Your task to perform on an android device: turn vacation reply on in the gmail app Image 0: 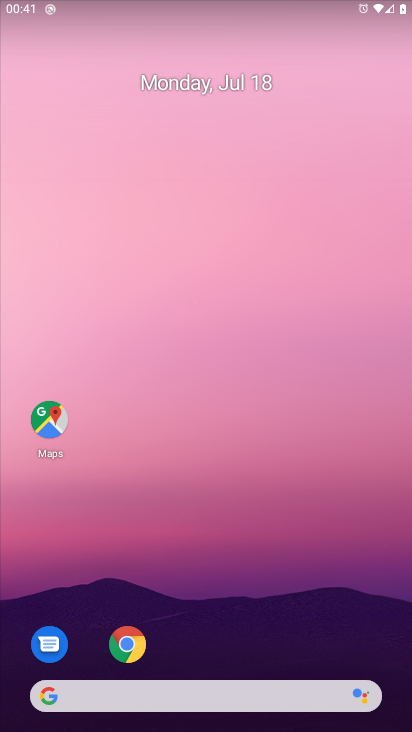
Step 0: press home button
Your task to perform on an android device: turn vacation reply on in the gmail app Image 1: 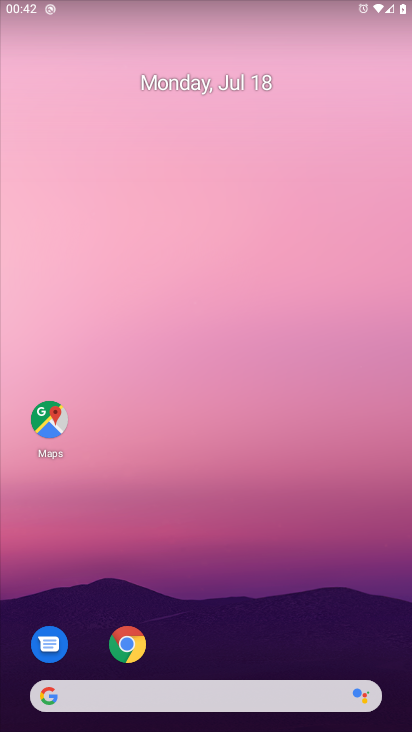
Step 1: drag from (250, 607) to (329, 10)
Your task to perform on an android device: turn vacation reply on in the gmail app Image 2: 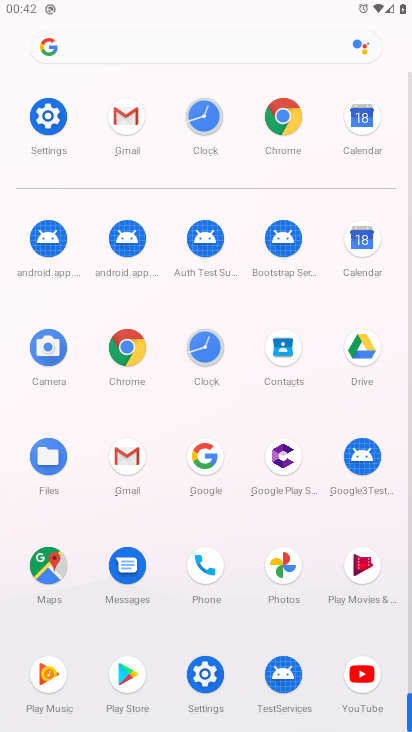
Step 2: click (140, 114)
Your task to perform on an android device: turn vacation reply on in the gmail app Image 3: 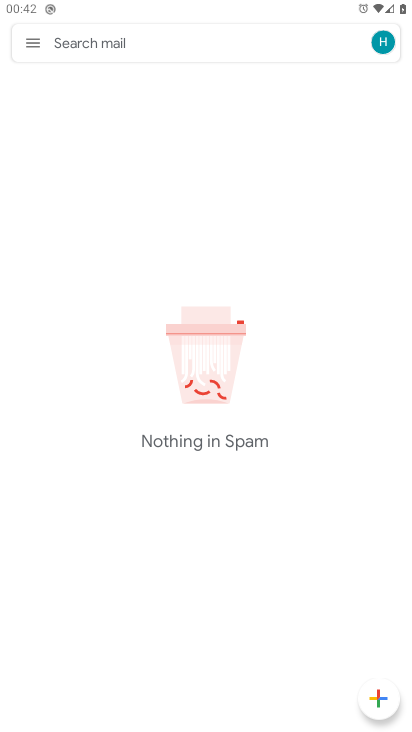
Step 3: click (34, 36)
Your task to perform on an android device: turn vacation reply on in the gmail app Image 4: 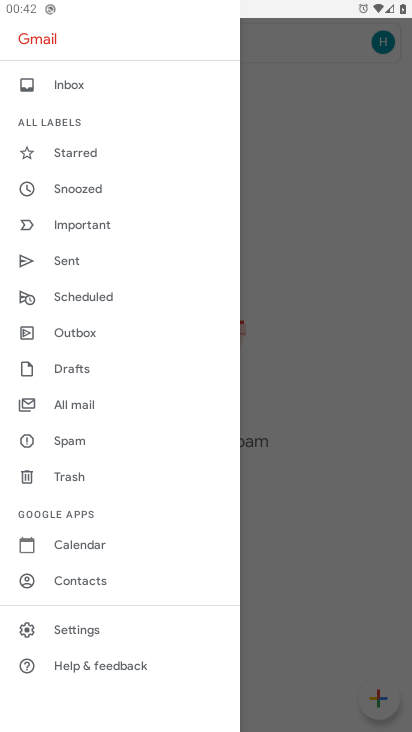
Step 4: click (66, 624)
Your task to perform on an android device: turn vacation reply on in the gmail app Image 5: 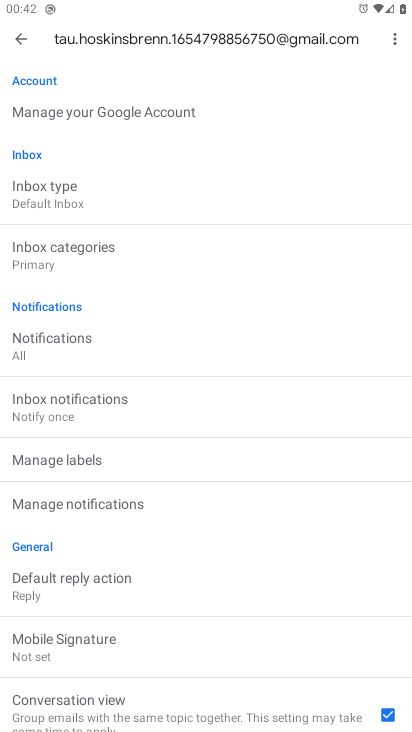
Step 5: drag from (299, 678) to (278, 206)
Your task to perform on an android device: turn vacation reply on in the gmail app Image 6: 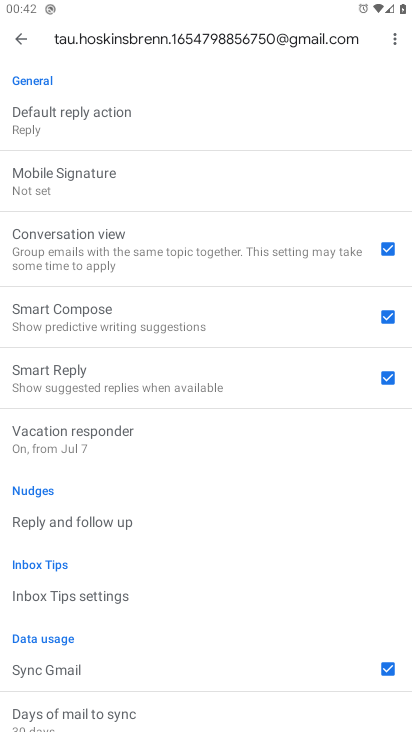
Step 6: drag from (227, 639) to (223, 216)
Your task to perform on an android device: turn vacation reply on in the gmail app Image 7: 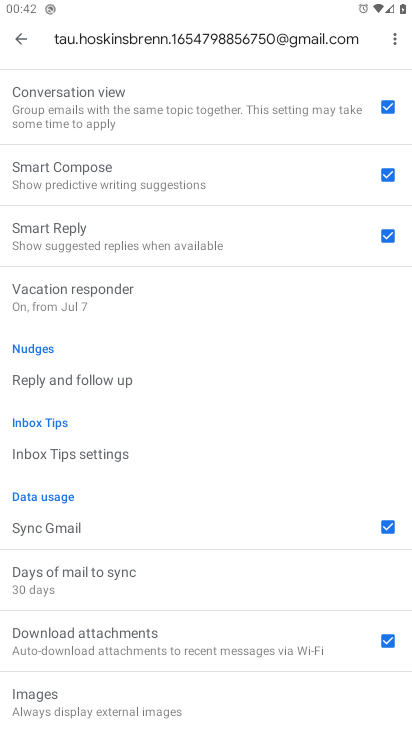
Step 7: drag from (165, 521) to (194, 2)
Your task to perform on an android device: turn vacation reply on in the gmail app Image 8: 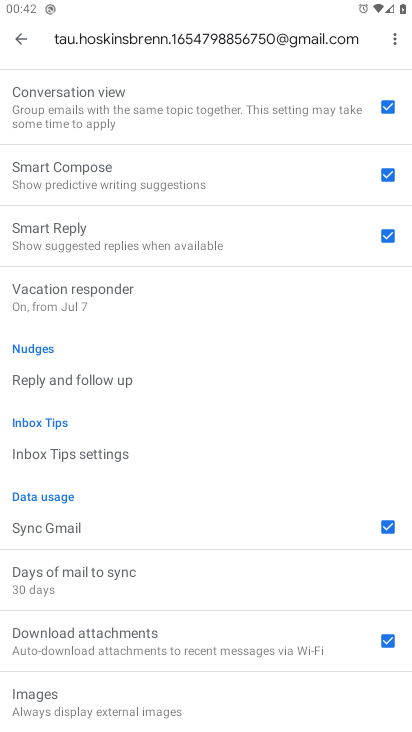
Step 8: click (209, 293)
Your task to perform on an android device: turn vacation reply on in the gmail app Image 9: 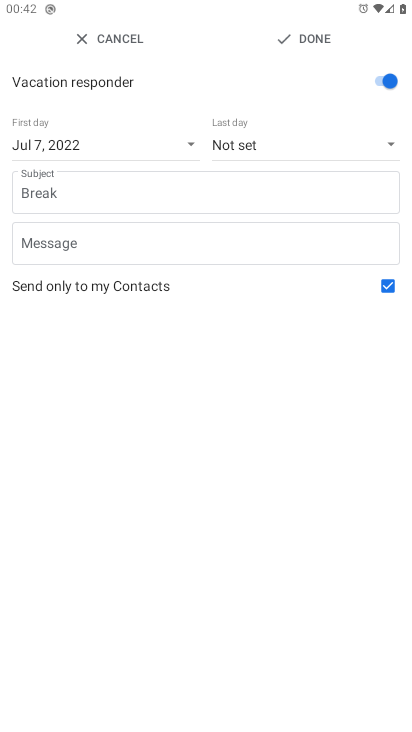
Step 9: task complete